Your task to perform on an android device: Open internet settings Image 0: 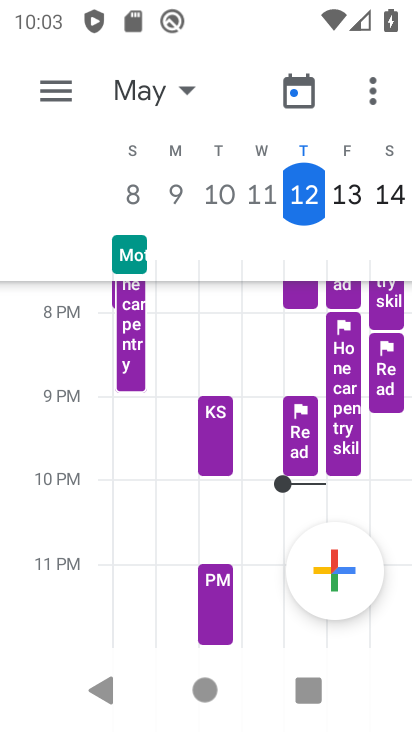
Step 0: press home button
Your task to perform on an android device: Open internet settings Image 1: 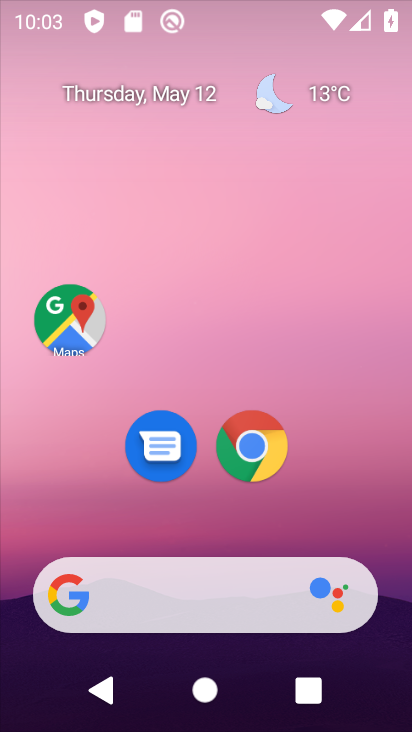
Step 1: drag from (336, 626) to (312, 174)
Your task to perform on an android device: Open internet settings Image 2: 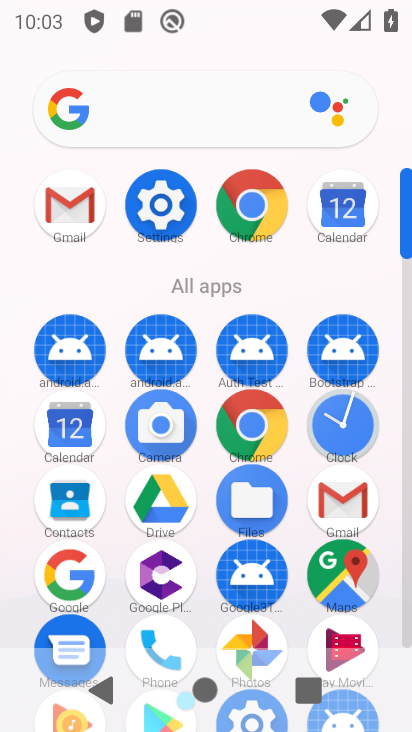
Step 2: click (163, 200)
Your task to perform on an android device: Open internet settings Image 3: 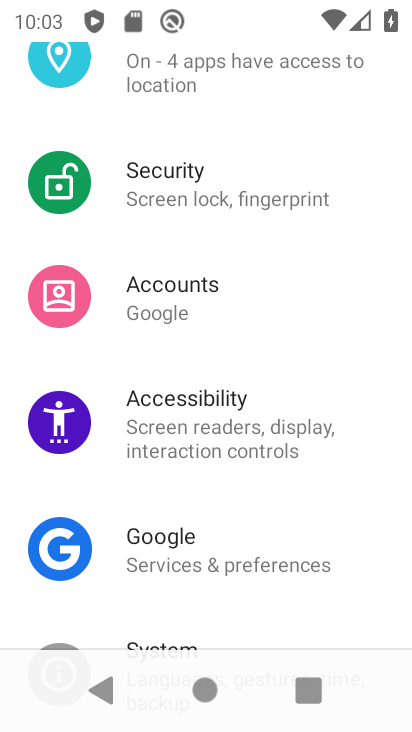
Step 3: drag from (168, 207) to (264, 657)
Your task to perform on an android device: Open internet settings Image 4: 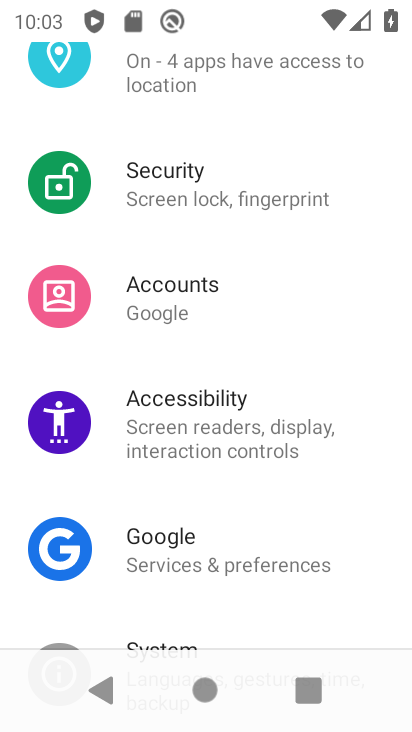
Step 4: drag from (253, 255) to (260, 710)
Your task to perform on an android device: Open internet settings Image 5: 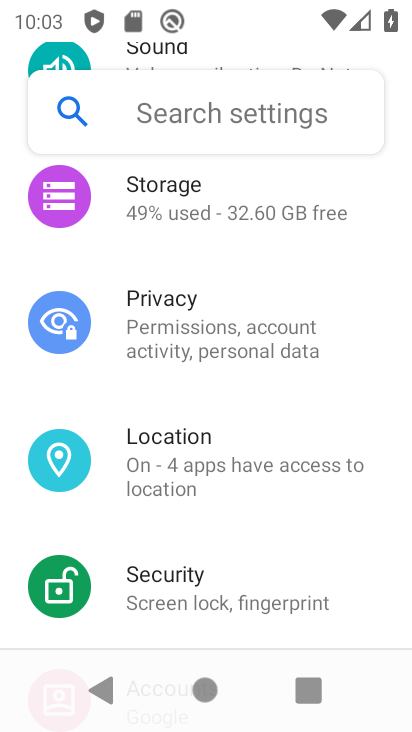
Step 5: drag from (293, 297) to (294, 654)
Your task to perform on an android device: Open internet settings Image 6: 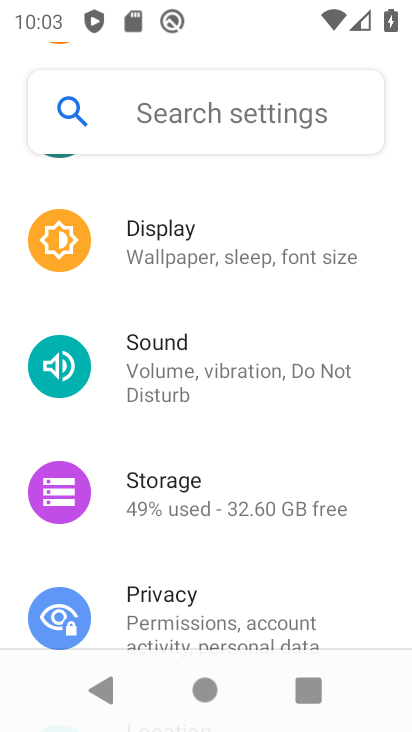
Step 6: drag from (257, 249) to (321, 639)
Your task to perform on an android device: Open internet settings Image 7: 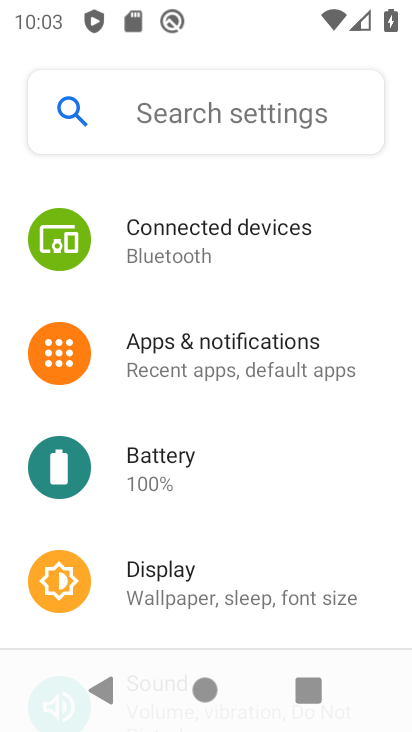
Step 7: drag from (277, 271) to (284, 619)
Your task to perform on an android device: Open internet settings Image 8: 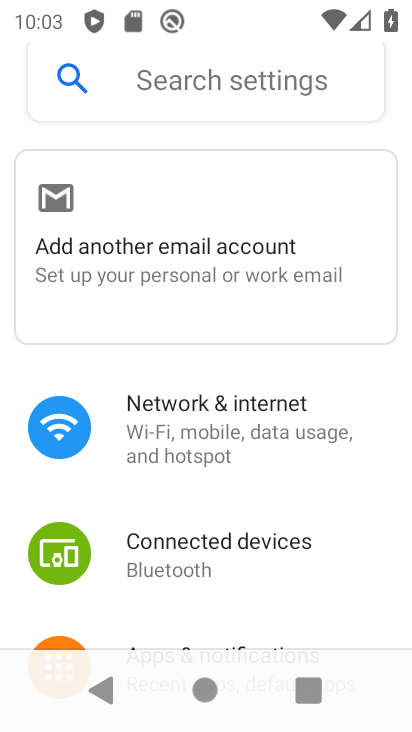
Step 8: click (271, 417)
Your task to perform on an android device: Open internet settings Image 9: 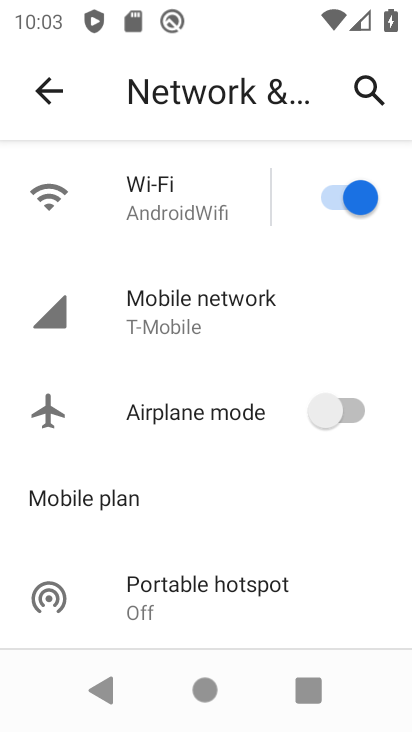
Step 9: task complete